Your task to perform on an android device: change the upload size in google photos Image 0: 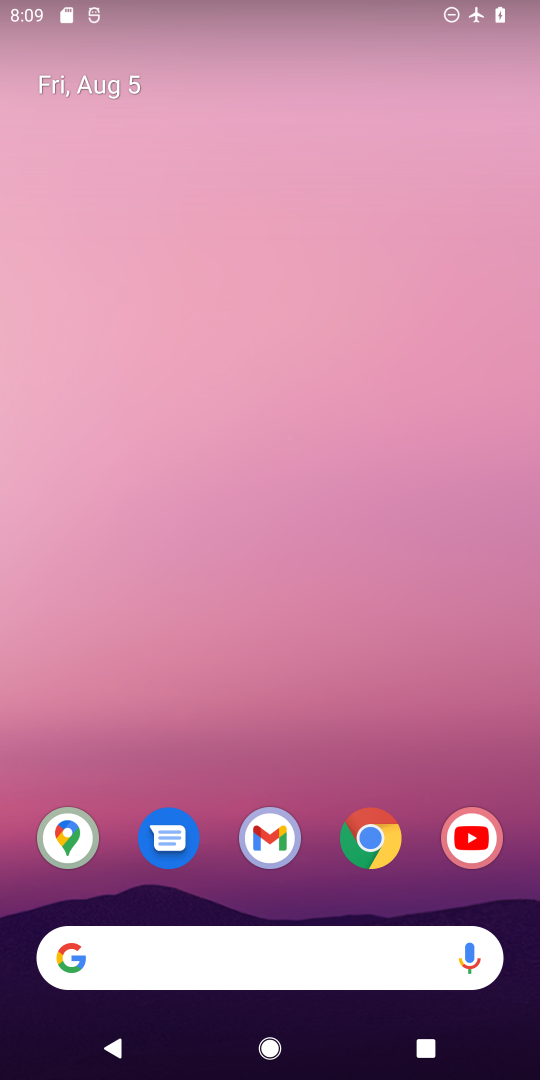
Step 0: drag from (294, 809) to (318, 213)
Your task to perform on an android device: change the upload size in google photos Image 1: 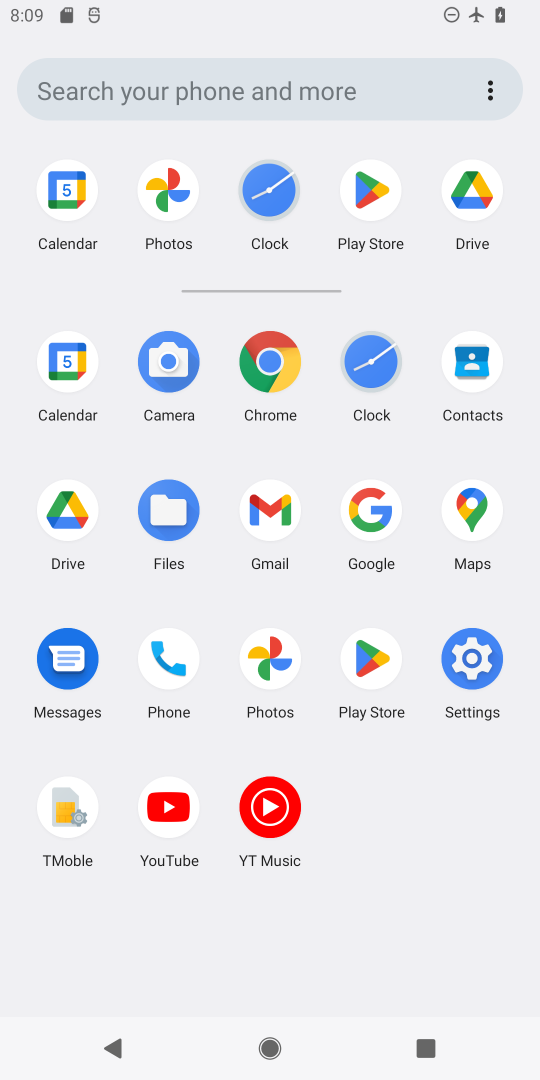
Step 1: click (272, 657)
Your task to perform on an android device: change the upload size in google photos Image 2: 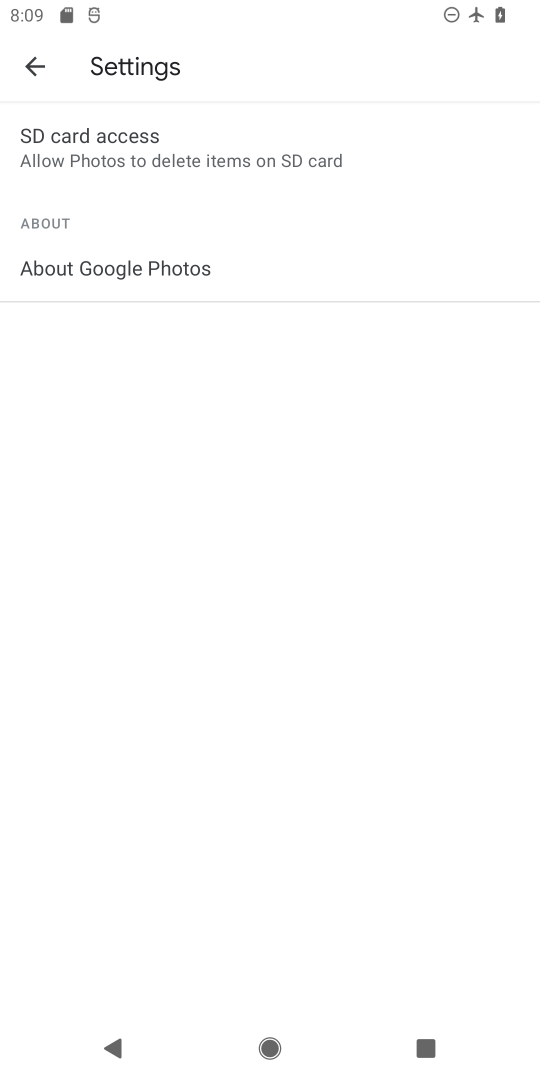
Step 2: click (30, 72)
Your task to perform on an android device: change the upload size in google photos Image 3: 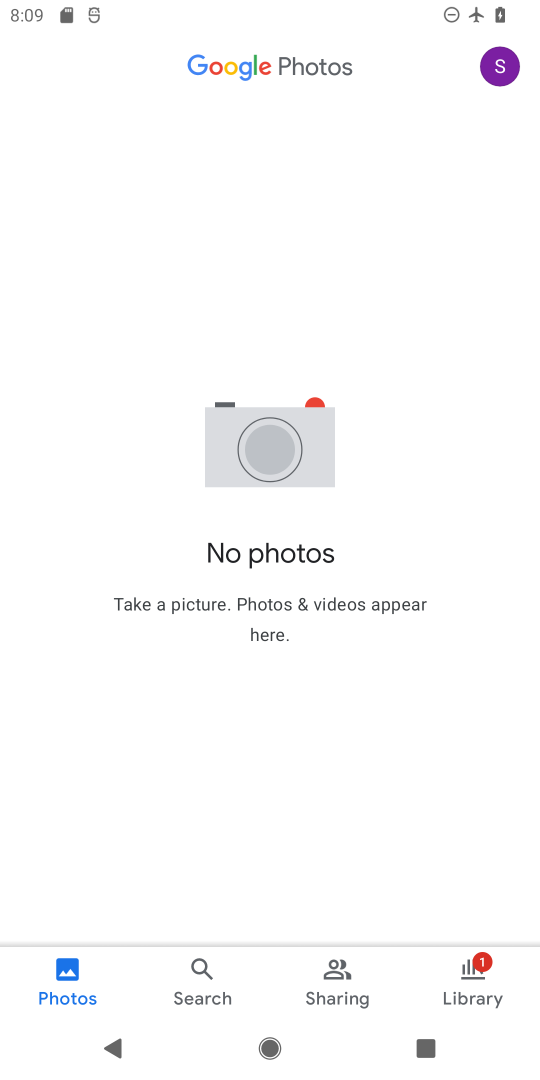
Step 3: click (495, 59)
Your task to perform on an android device: change the upload size in google photos Image 4: 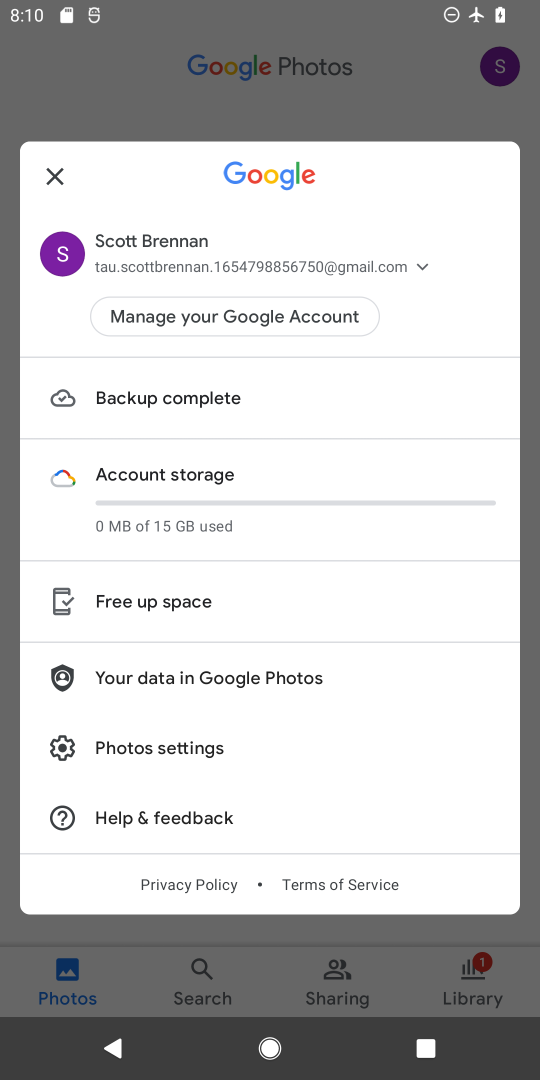
Step 4: click (162, 743)
Your task to perform on an android device: change the upload size in google photos Image 5: 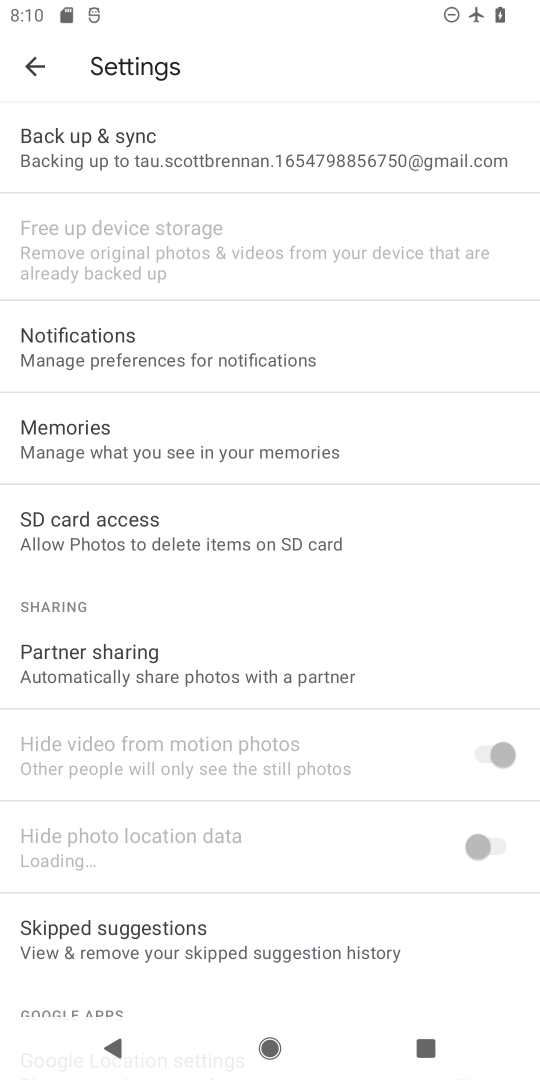
Step 5: click (79, 139)
Your task to perform on an android device: change the upload size in google photos Image 6: 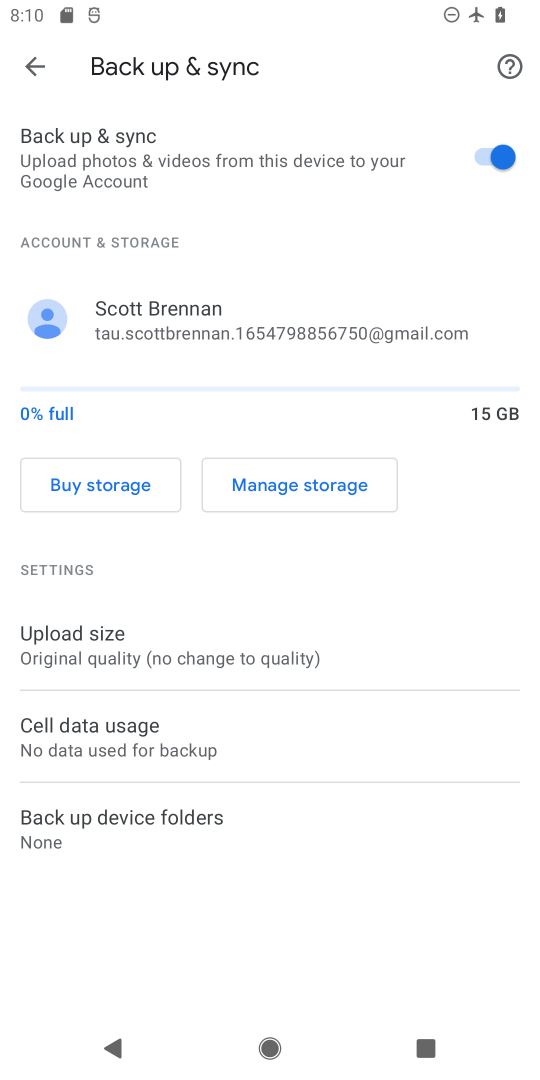
Step 6: click (95, 649)
Your task to perform on an android device: change the upload size in google photos Image 7: 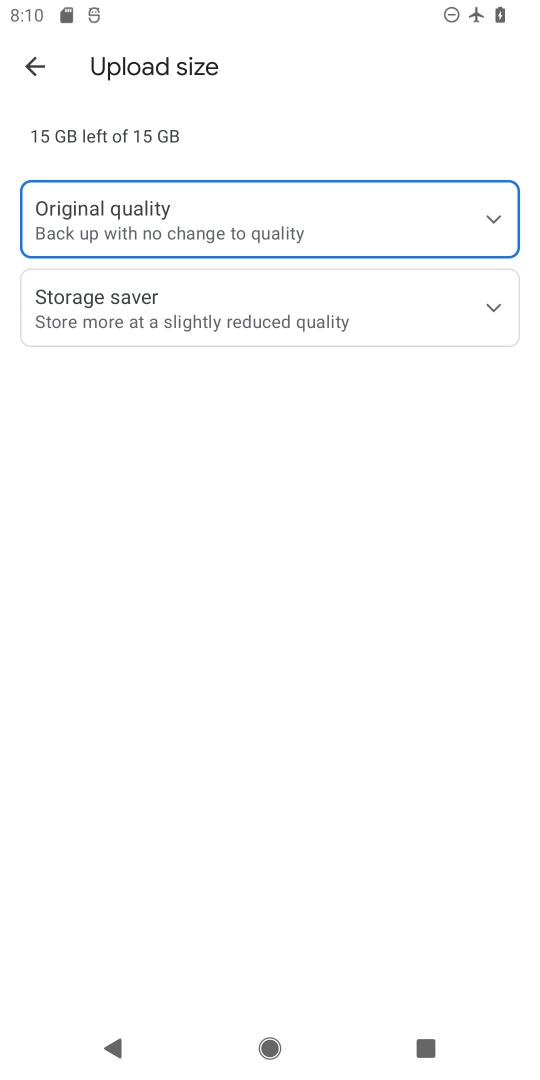
Step 7: click (91, 318)
Your task to perform on an android device: change the upload size in google photos Image 8: 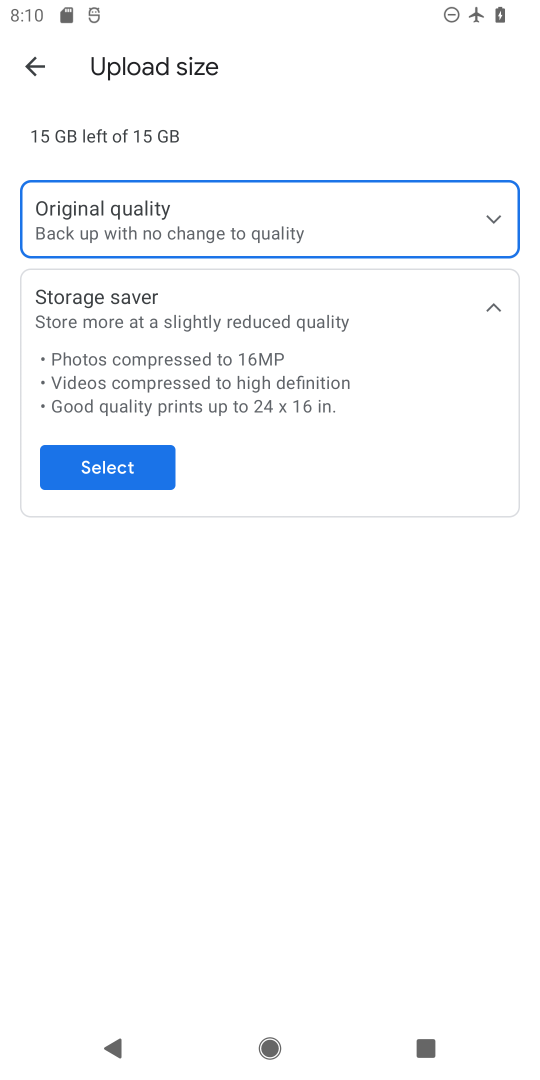
Step 8: click (70, 471)
Your task to perform on an android device: change the upload size in google photos Image 9: 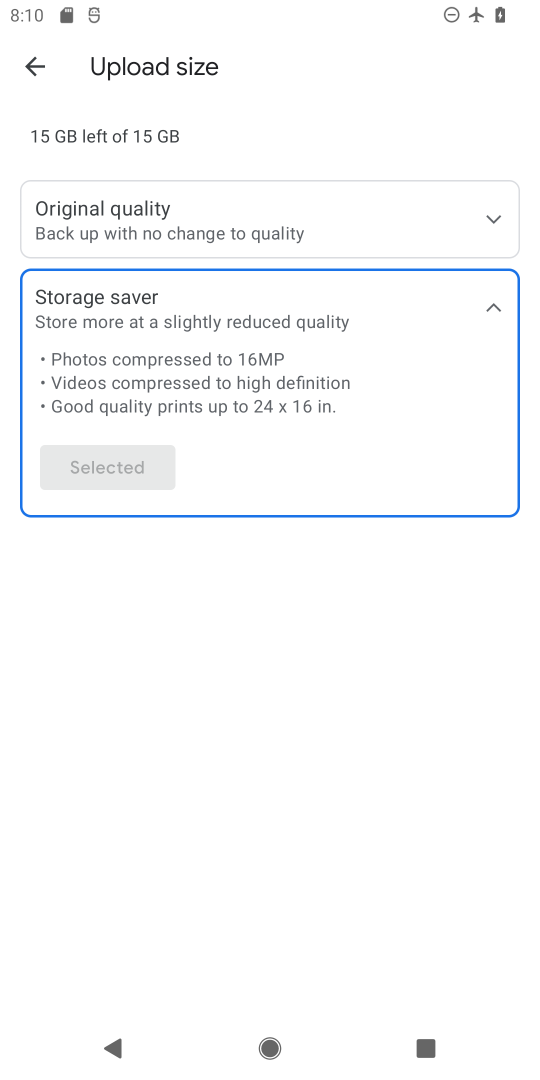
Step 9: task complete